Your task to perform on an android device: Open sound settings Image 0: 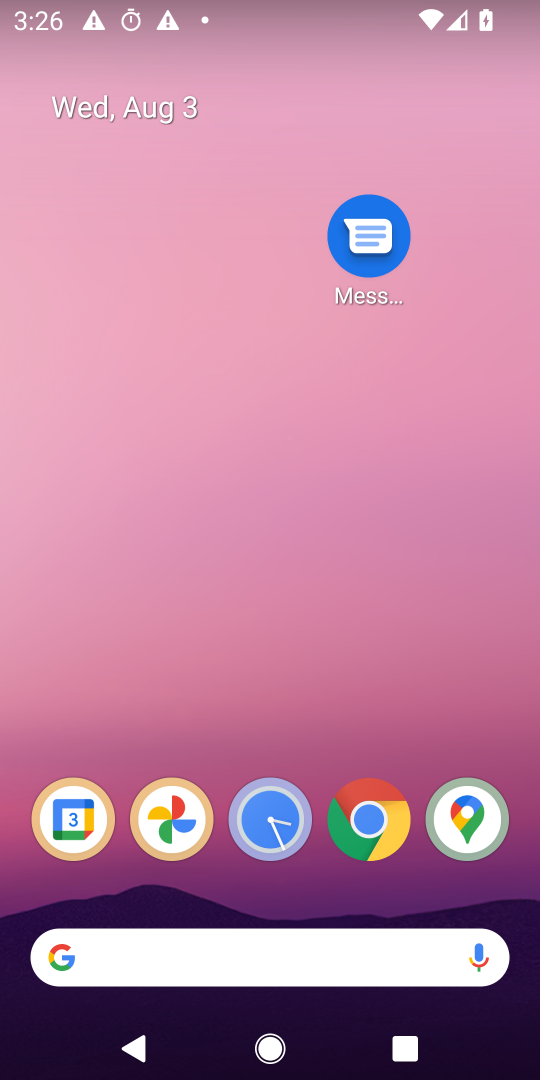
Step 0: drag from (78, 957) to (322, 458)
Your task to perform on an android device: Open sound settings Image 1: 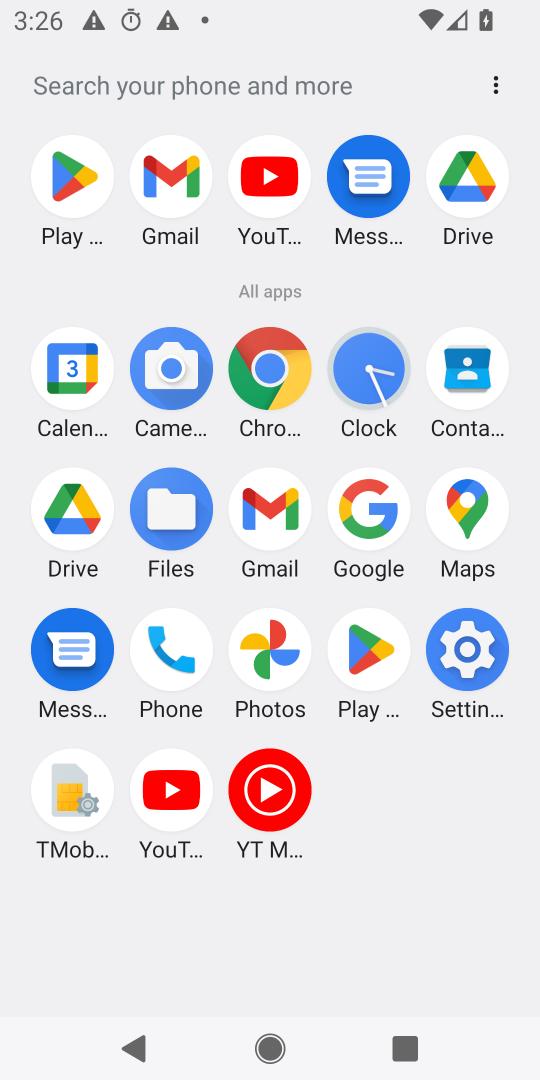
Step 1: click (456, 657)
Your task to perform on an android device: Open sound settings Image 2: 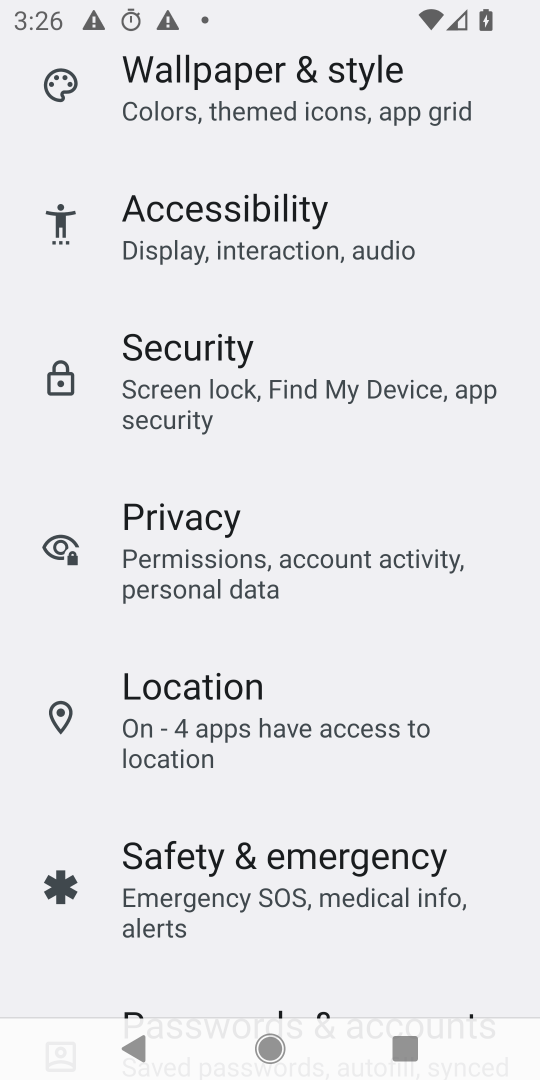
Step 2: drag from (367, 196) to (261, 829)
Your task to perform on an android device: Open sound settings Image 3: 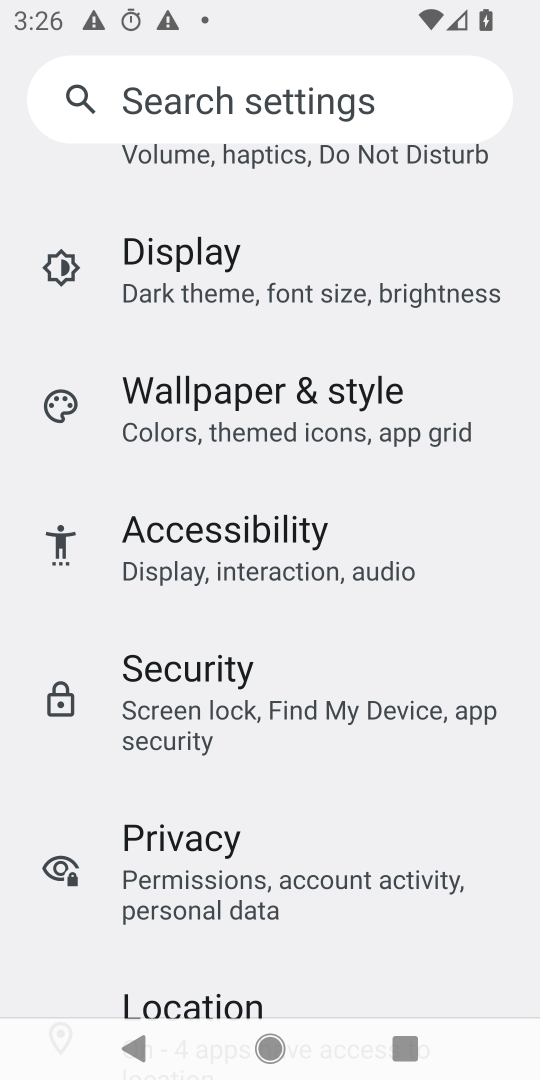
Step 3: drag from (309, 267) to (207, 823)
Your task to perform on an android device: Open sound settings Image 4: 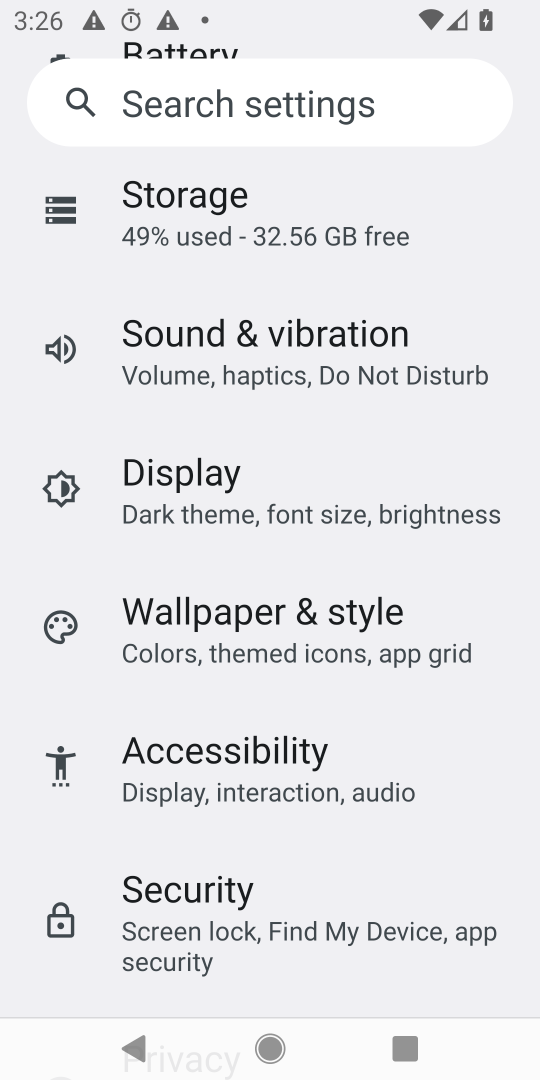
Step 4: drag from (262, 211) to (261, 1012)
Your task to perform on an android device: Open sound settings Image 5: 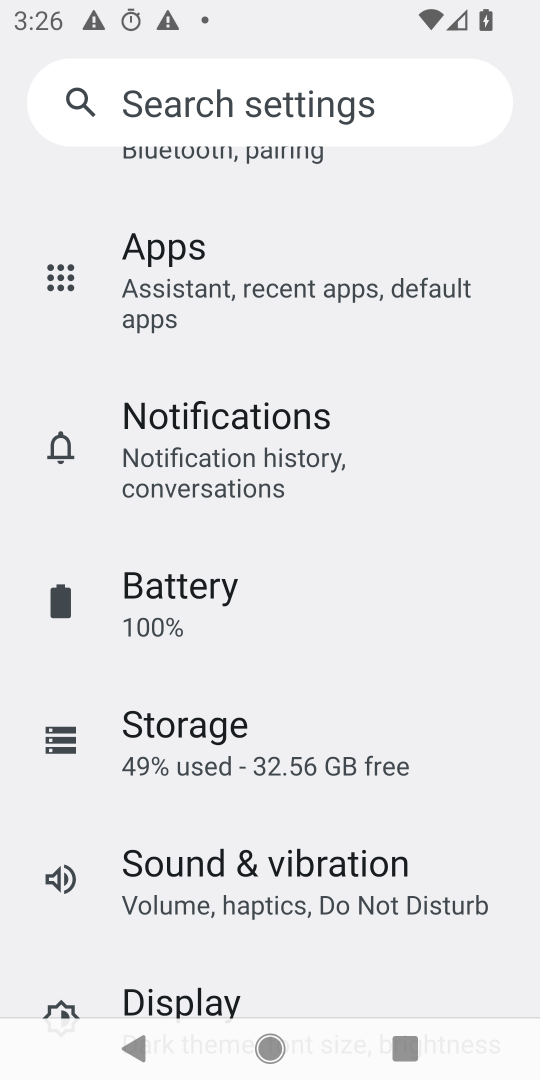
Step 5: drag from (337, 366) to (229, 1076)
Your task to perform on an android device: Open sound settings Image 6: 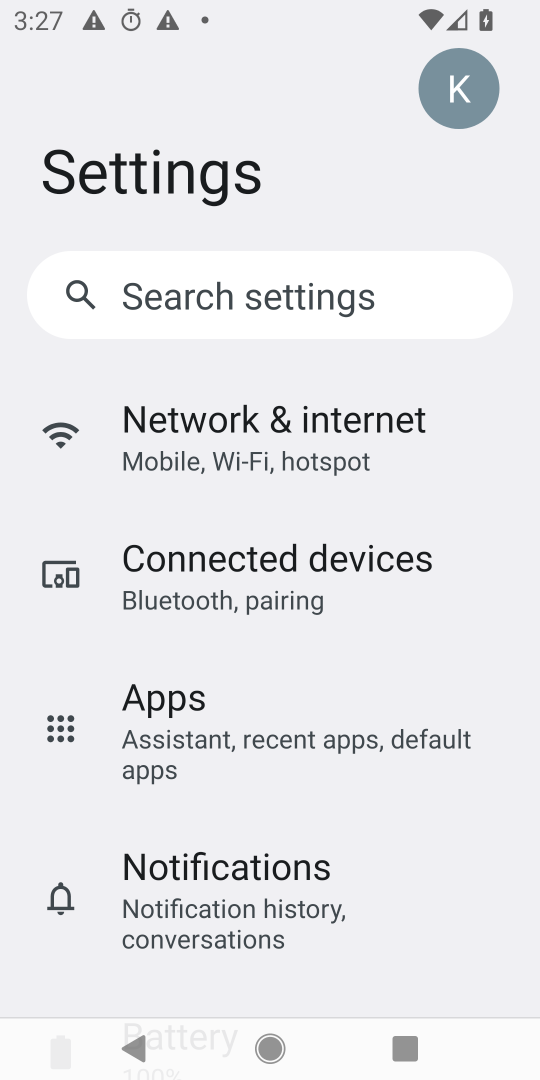
Step 6: drag from (302, 781) to (311, 251)
Your task to perform on an android device: Open sound settings Image 7: 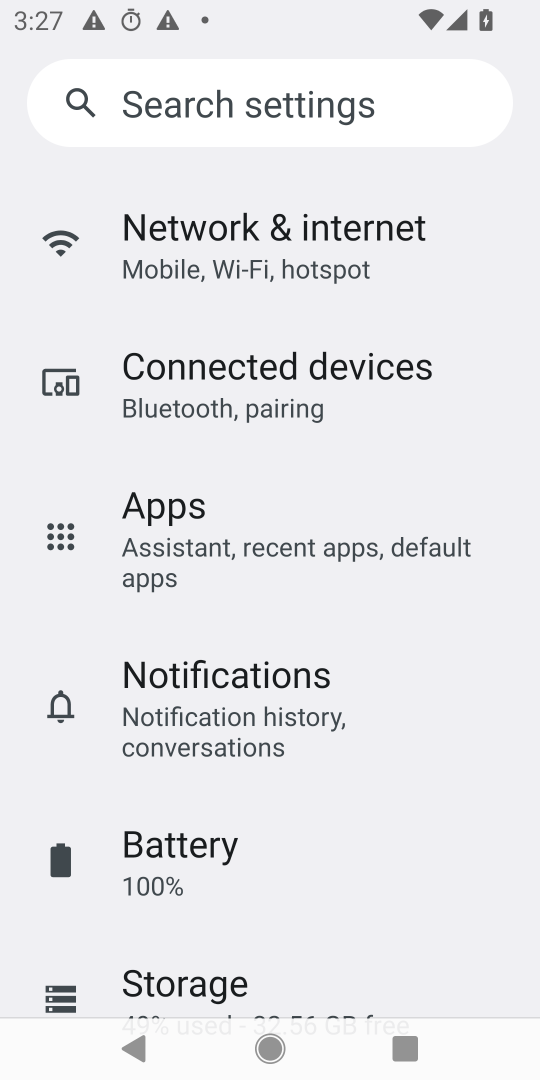
Step 7: drag from (291, 759) to (439, 77)
Your task to perform on an android device: Open sound settings Image 8: 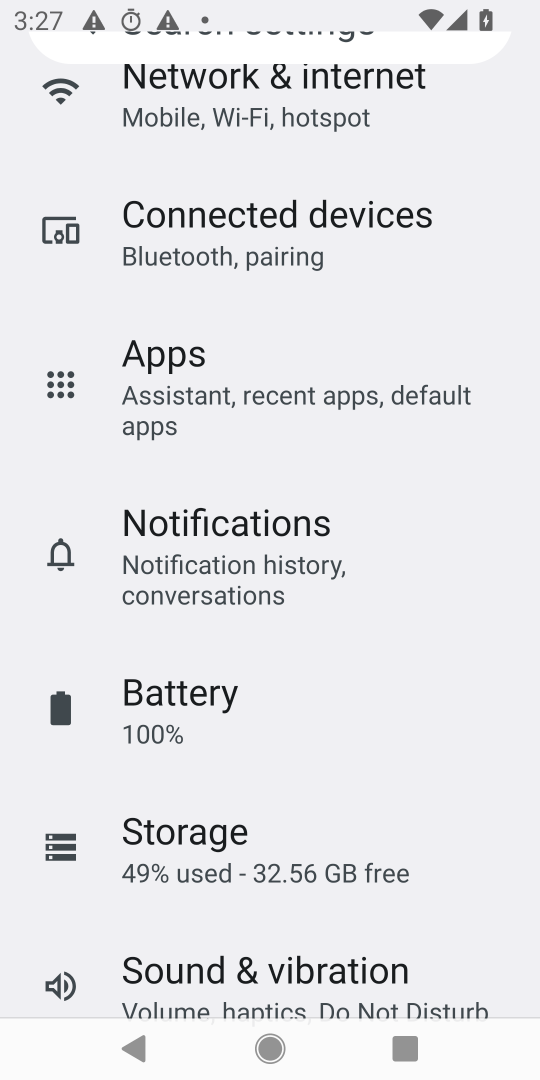
Step 8: drag from (274, 963) to (352, 490)
Your task to perform on an android device: Open sound settings Image 9: 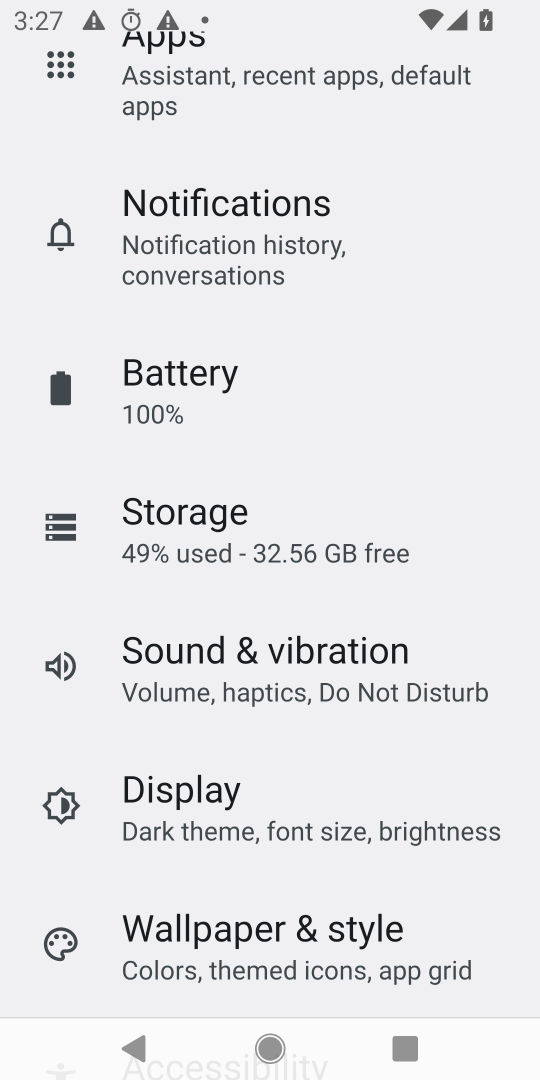
Step 9: click (204, 661)
Your task to perform on an android device: Open sound settings Image 10: 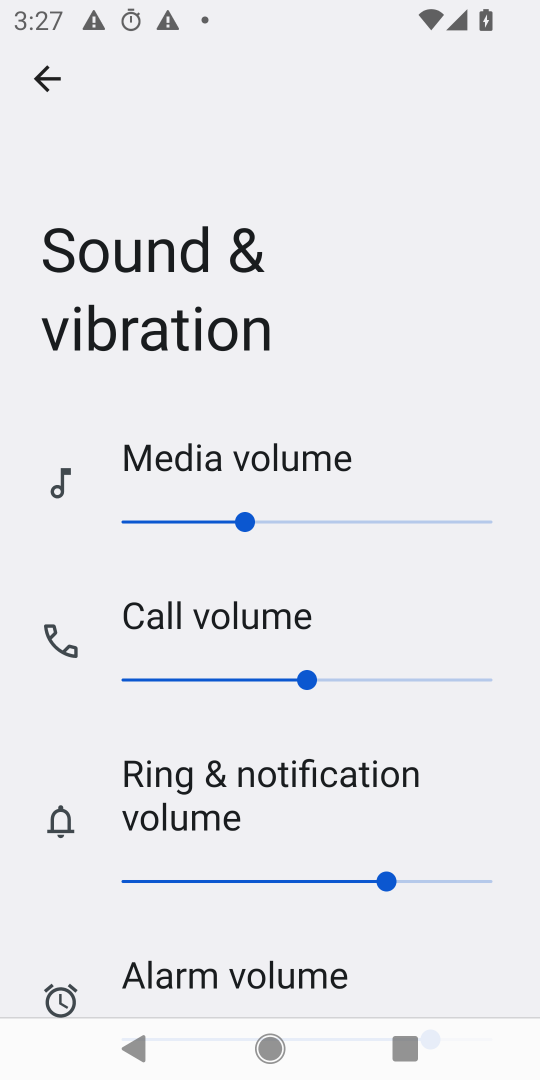
Step 10: task complete